Your task to perform on an android device: Go to CNN.com Image 0: 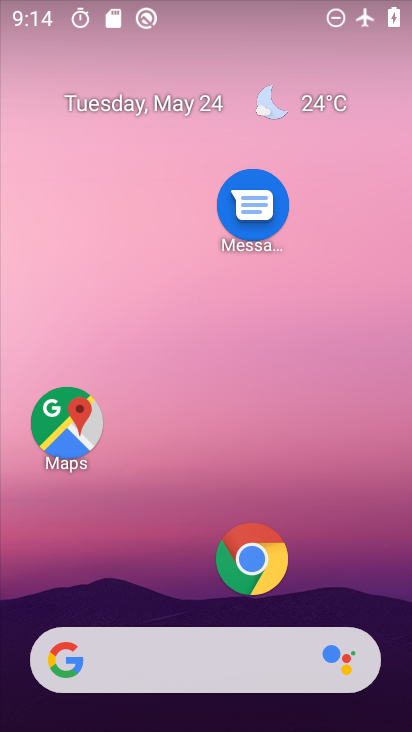
Step 0: click (242, 545)
Your task to perform on an android device: Go to CNN.com Image 1: 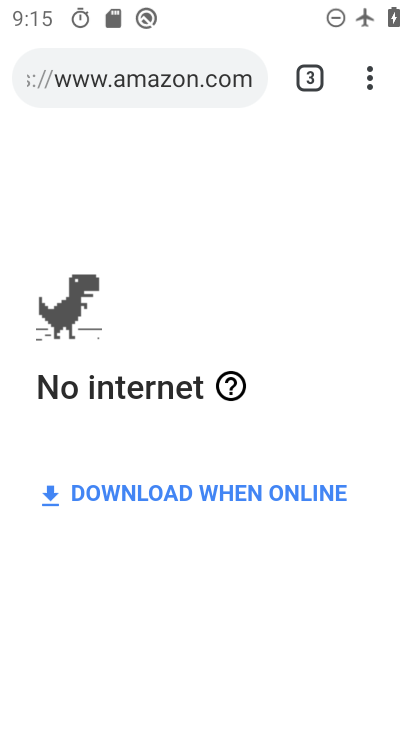
Step 1: click (316, 75)
Your task to perform on an android device: Go to CNN.com Image 2: 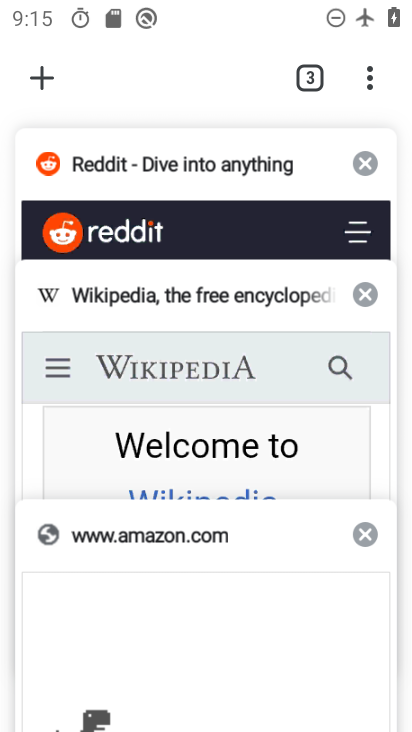
Step 2: click (41, 74)
Your task to perform on an android device: Go to CNN.com Image 3: 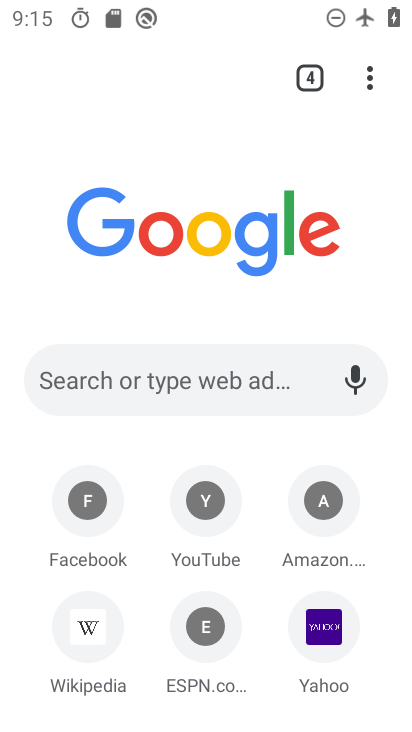
Step 3: click (150, 343)
Your task to perform on an android device: Go to CNN.com Image 4: 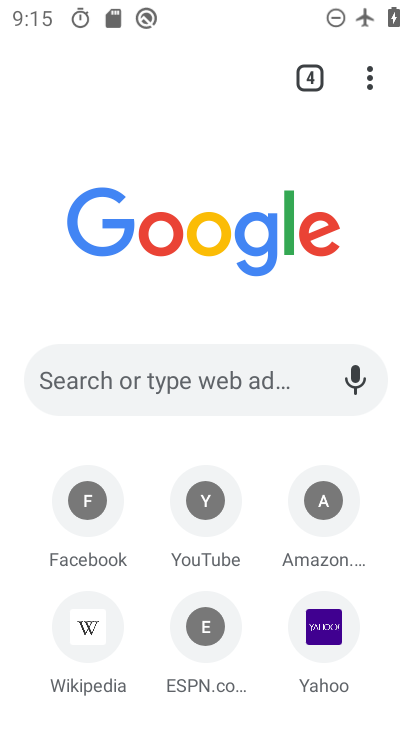
Step 4: click (138, 355)
Your task to perform on an android device: Go to CNN.com Image 5: 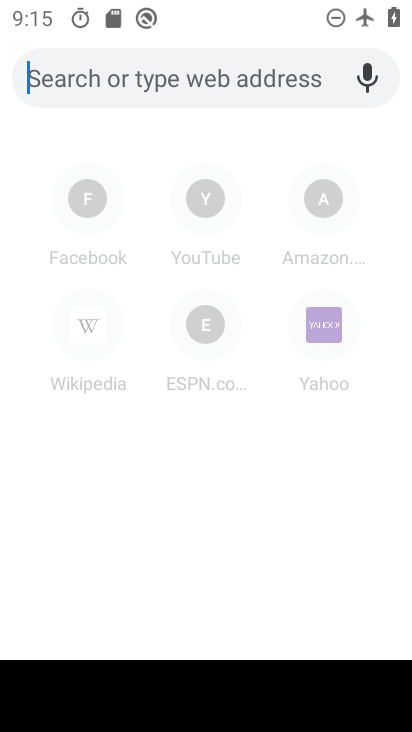
Step 5: type "CNN.com"
Your task to perform on an android device: Go to CNN.com Image 6: 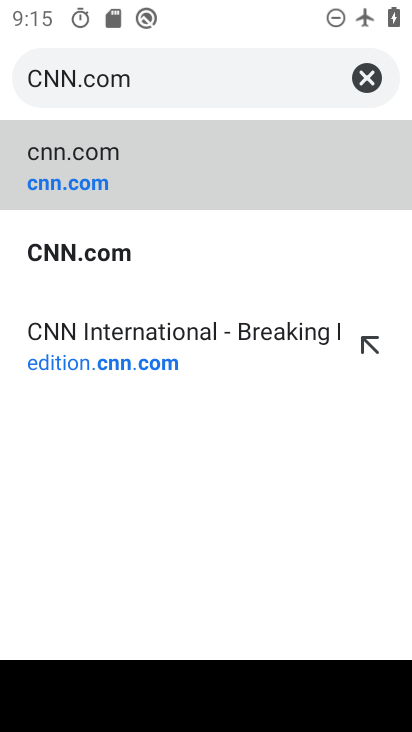
Step 6: click (238, 190)
Your task to perform on an android device: Go to CNN.com Image 7: 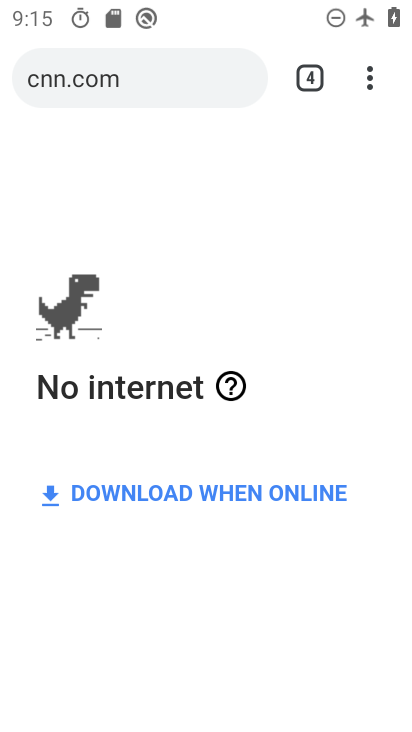
Step 7: task complete